Your task to perform on an android device: find snoozed emails in the gmail app Image 0: 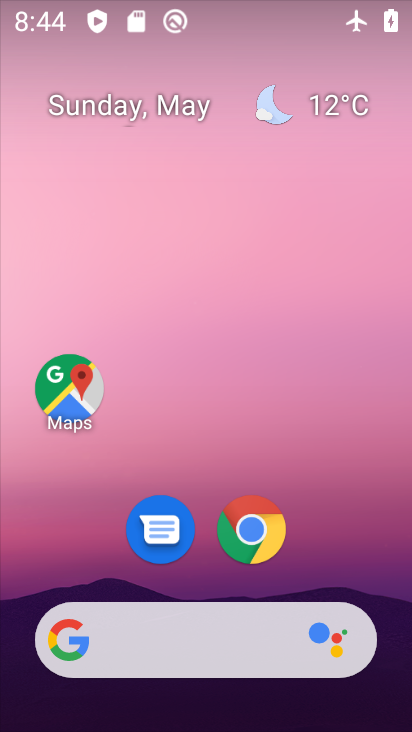
Step 0: drag from (321, 535) to (262, 37)
Your task to perform on an android device: find snoozed emails in the gmail app Image 1: 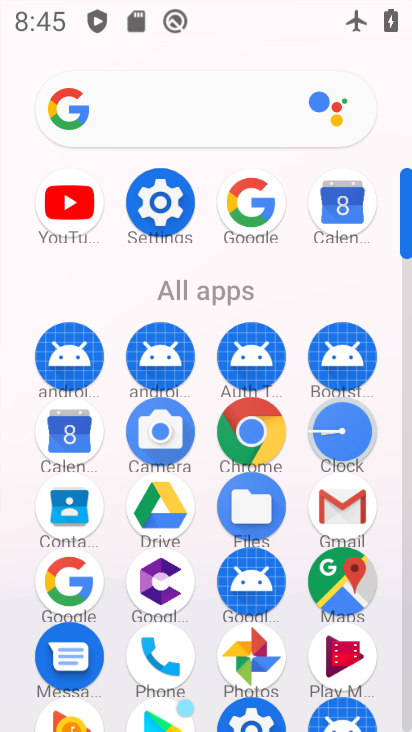
Step 1: click (336, 496)
Your task to perform on an android device: find snoozed emails in the gmail app Image 2: 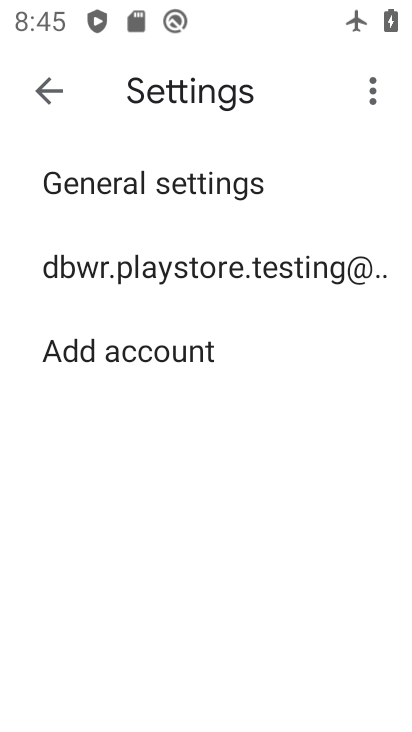
Step 2: click (37, 87)
Your task to perform on an android device: find snoozed emails in the gmail app Image 3: 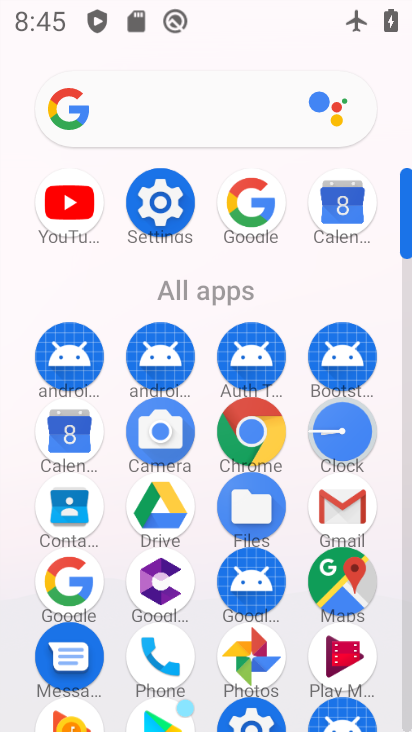
Step 3: click (352, 510)
Your task to perform on an android device: find snoozed emails in the gmail app Image 4: 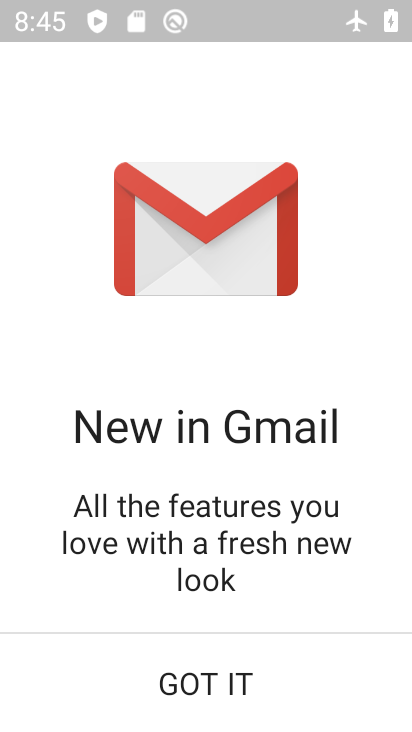
Step 4: click (198, 668)
Your task to perform on an android device: find snoozed emails in the gmail app Image 5: 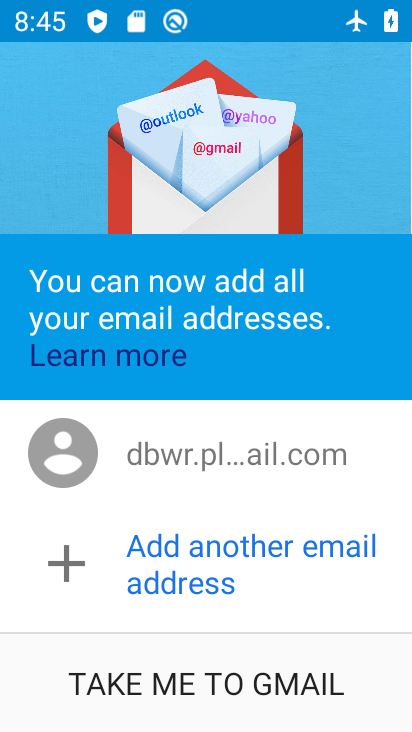
Step 5: click (210, 675)
Your task to perform on an android device: find snoozed emails in the gmail app Image 6: 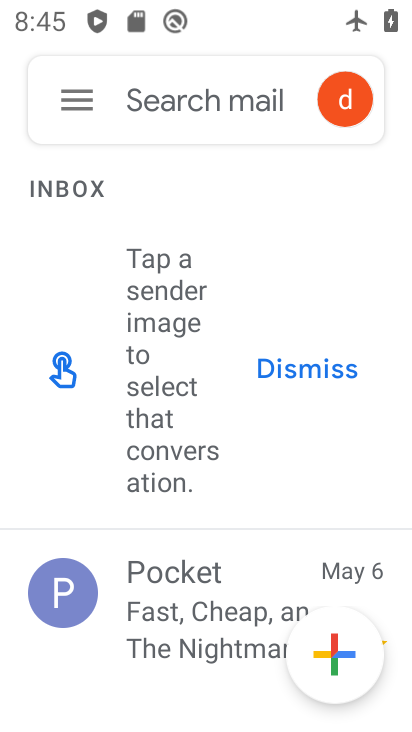
Step 6: drag from (115, 669) to (218, 289)
Your task to perform on an android device: find snoozed emails in the gmail app Image 7: 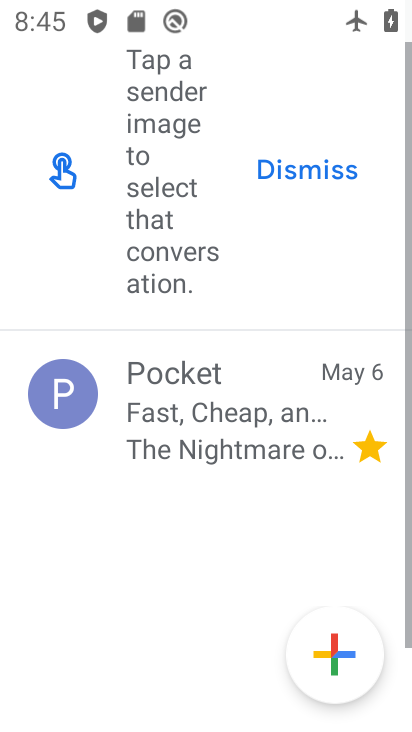
Step 7: drag from (145, 154) to (129, 584)
Your task to perform on an android device: find snoozed emails in the gmail app Image 8: 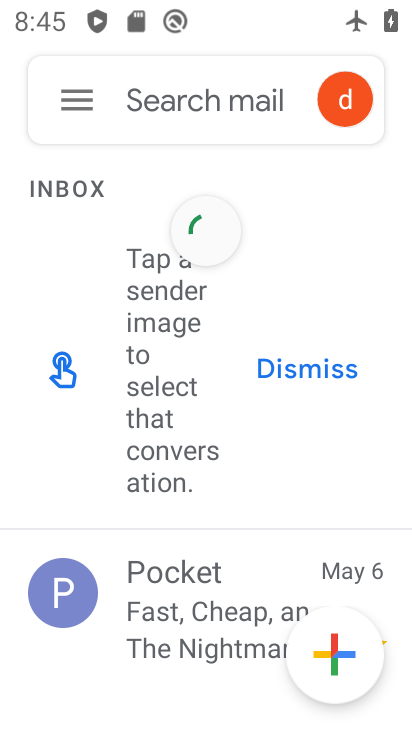
Step 8: click (58, 79)
Your task to perform on an android device: find snoozed emails in the gmail app Image 9: 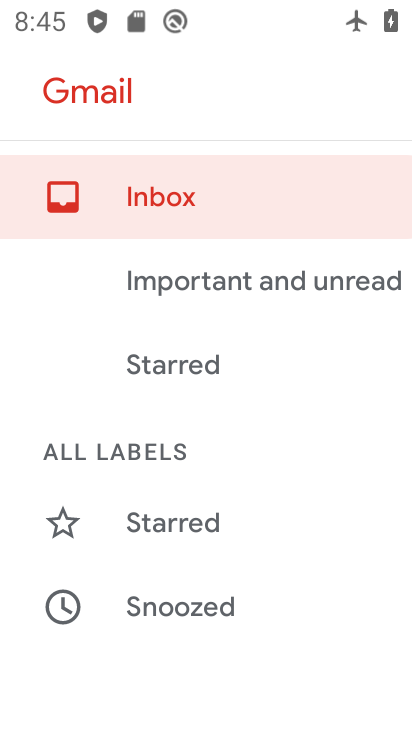
Step 9: click (204, 614)
Your task to perform on an android device: find snoozed emails in the gmail app Image 10: 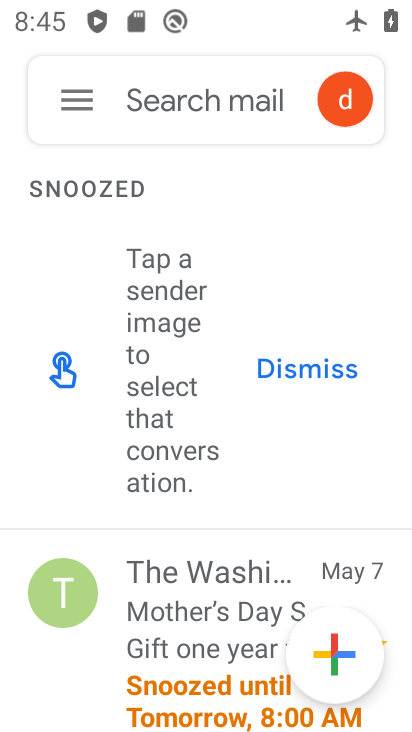
Step 10: task complete